Your task to perform on an android device: Find coffee shops on Maps Image 0: 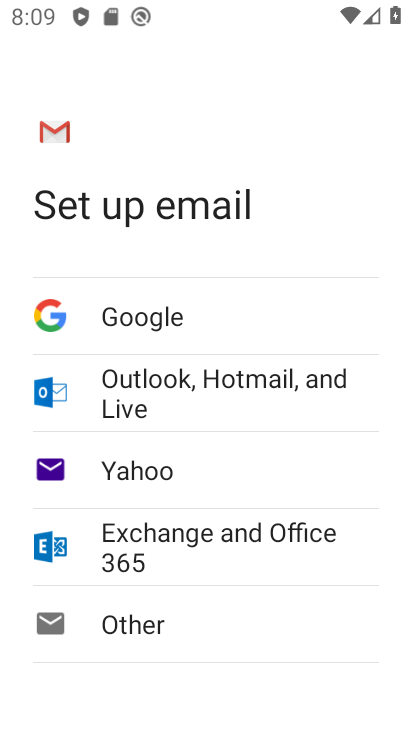
Step 0: press home button
Your task to perform on an android device: Find coffee shops on Maps Image 1: 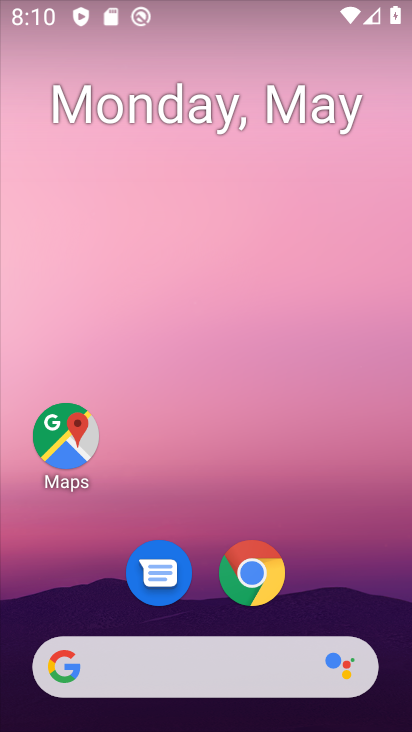
Step 1: drag from (212, 693) to (202, 138)
Your task to perform on an android device: Find coffee shops on Maps Image 2: 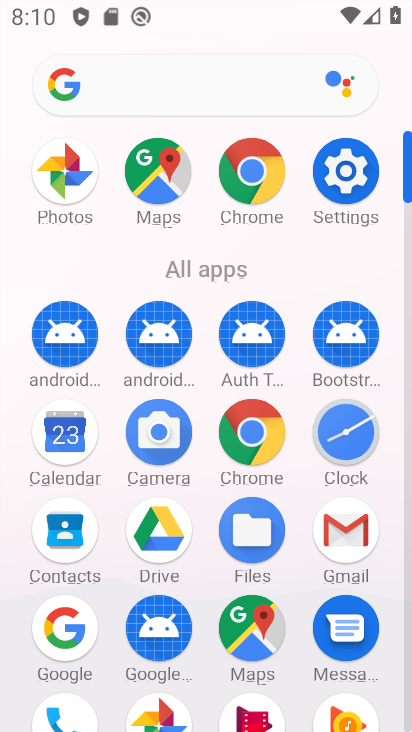
Step 2: click (163, 180)
Your task to perform on an android device: Find coffee shops on Maps Image 3: 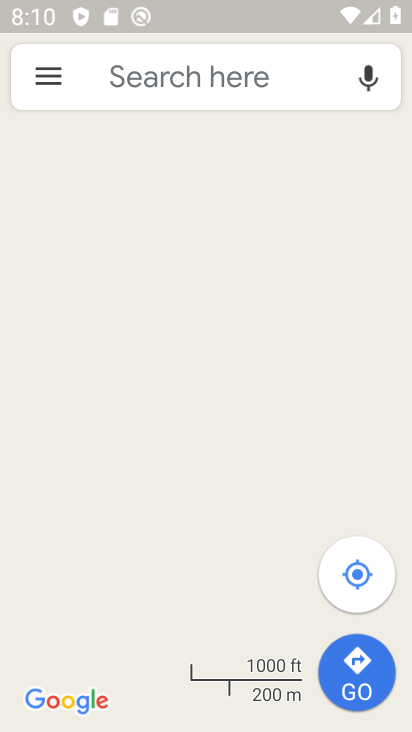
Step 3: click (175, 82)
Your task to perform on an android device: Find coffee shops on Maps Image 4: 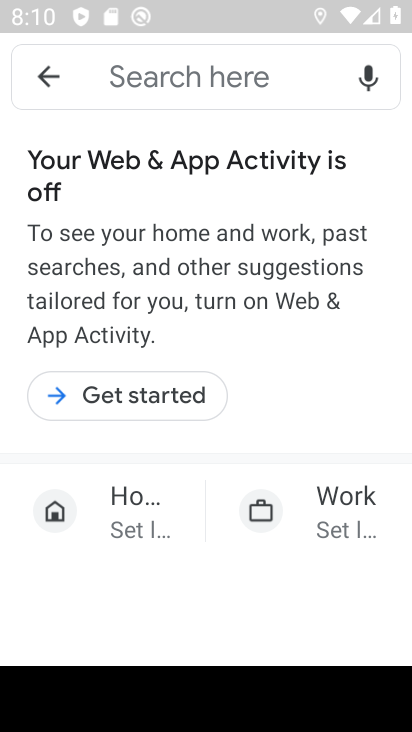
Step 4: type "coffee"
Your task to perform on an android device: Find coffee shops on Maps Image 5: 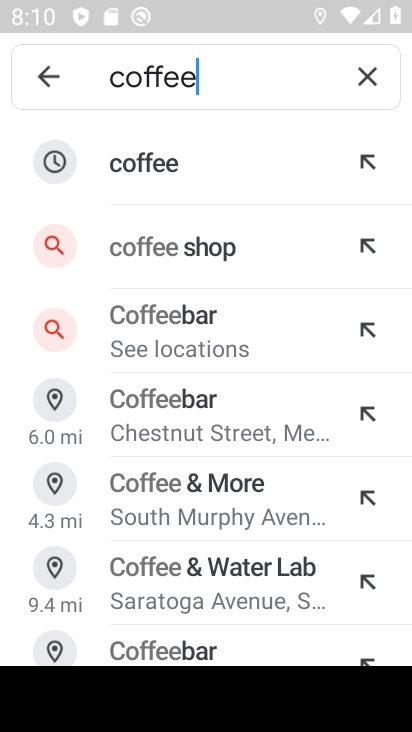
Step 5: click (273, 256)
Your task to perform on an android device: Find coffee shops on Maps Image 6: 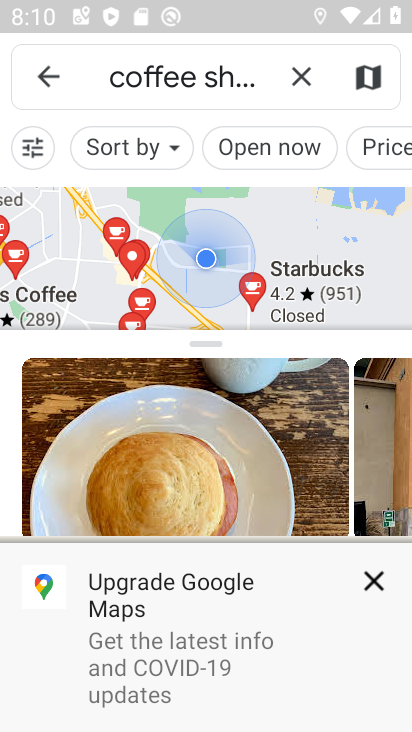
Step 6: task complete